Your task to perform on an android device: Toggle the flashlight Image 0: 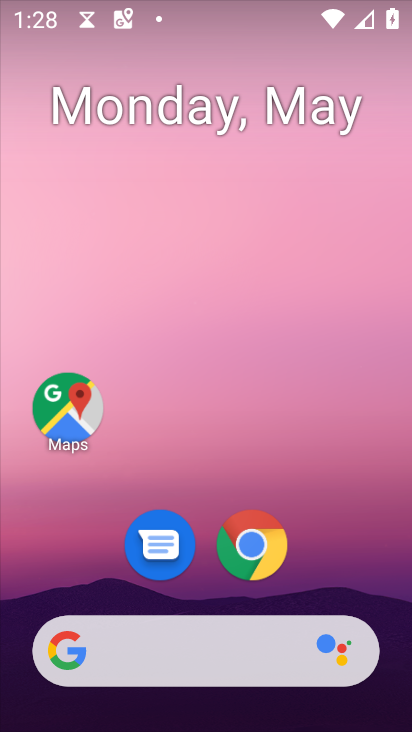
Step 0: drag from (341, 540) to (302, 152)
Your task to perform on an android device: Toggle the flashlight Image 1: 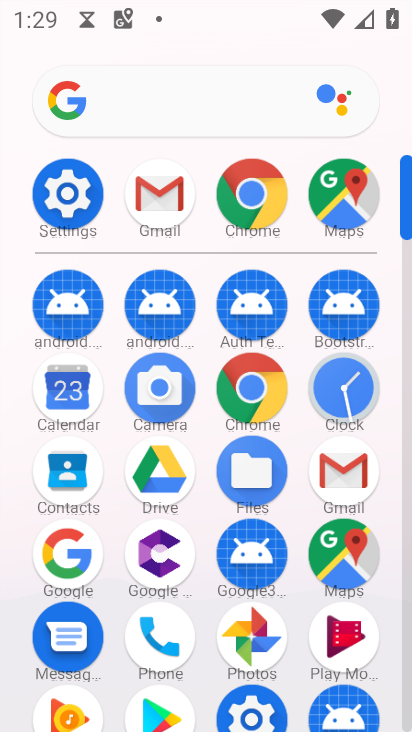
Step 1: click (56, 198)
Your task to perform on an android device: Toggle the flashlight Image 2: 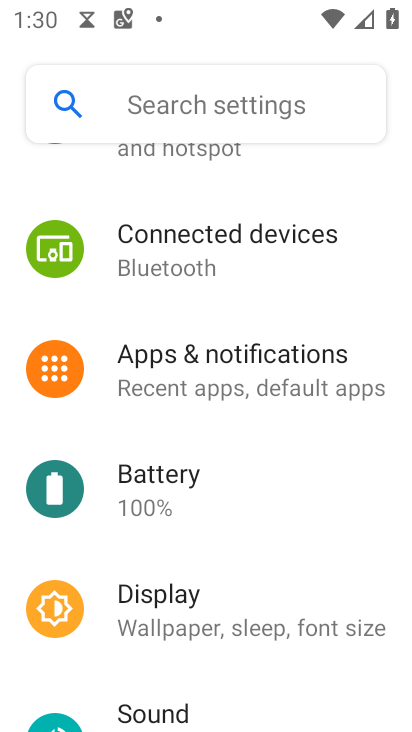
Step 2: task complete